Your task to perform on an android device: Clear the shopping cart on costco. Image 0: 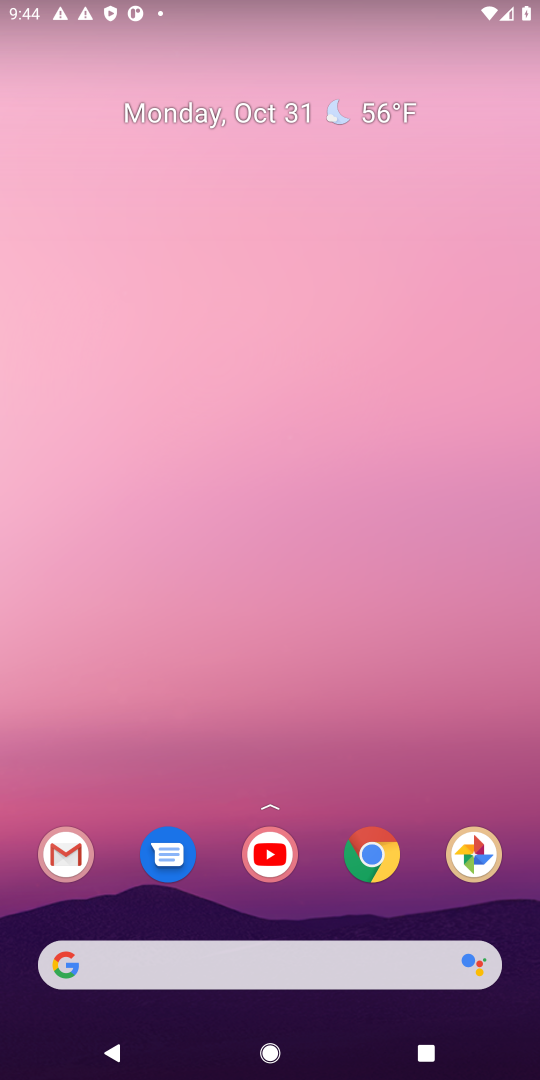
Step 0: click (263, 964)
Your task to perform on an android device: Clear the shopping cart on costco. Image 1: 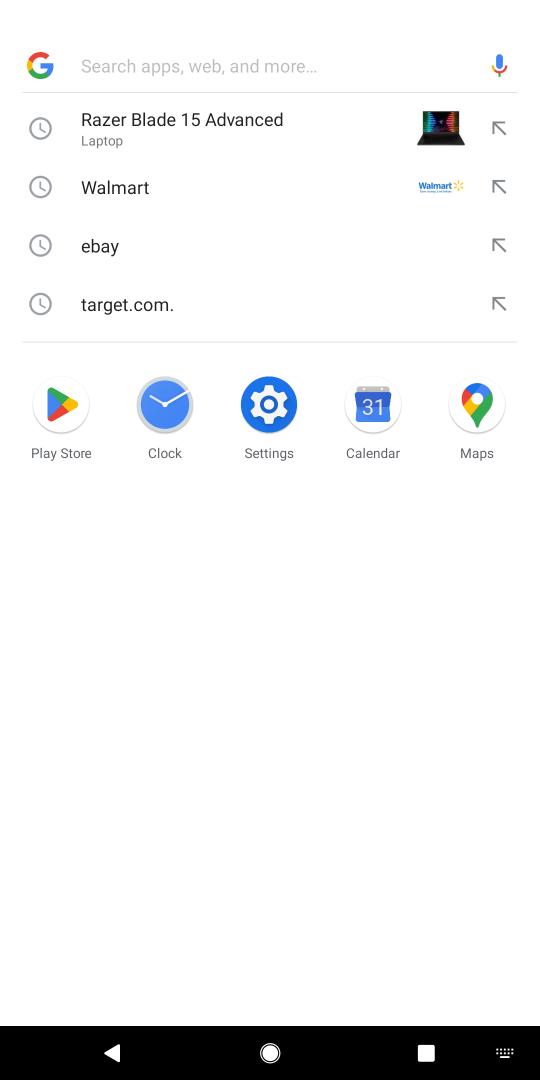
Step 1: type "shopping cart"
Your task to perform on an android device: Clear the shopping cart on costco. Image 2: 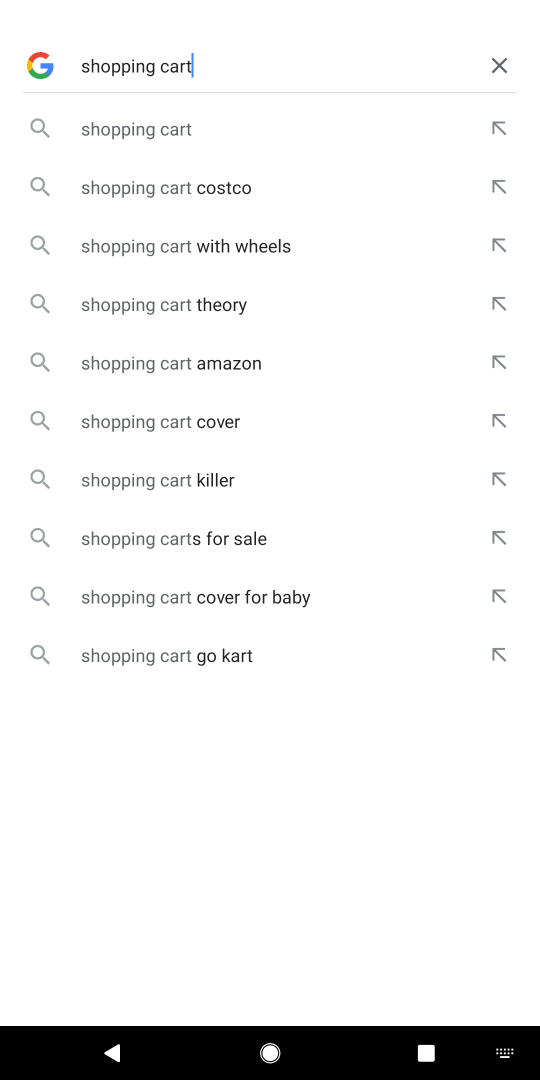
Step 2: click (196, 139)
Your task to perform on an android device: Clear the shopping cart on costco. Image 3: 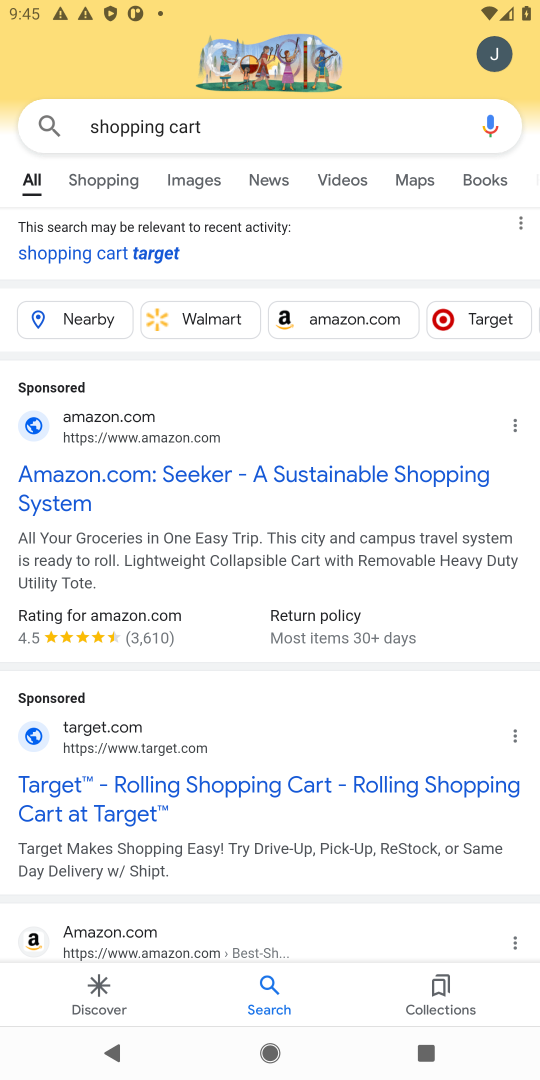
Step 3: task complete